Your task to perform on an android device: toggle show notifications on the lock screen Image 0: 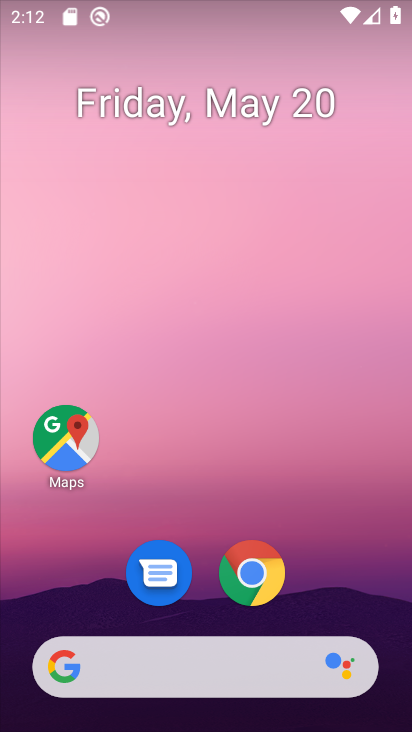
Step 0: drag from (207, 617) to (207, 177)
Your task to perform on an android device: toggle show notifications on the lock screen Image 1: 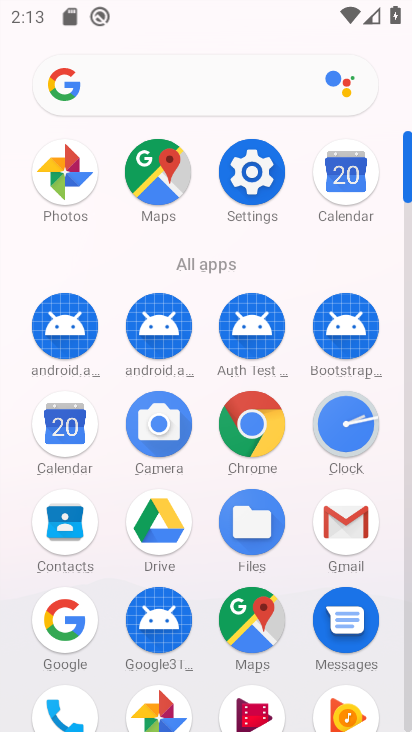
Step 1: click (254, 179)
Your task to perform on an android device: toggle show notifications on the lock screen Image 2: 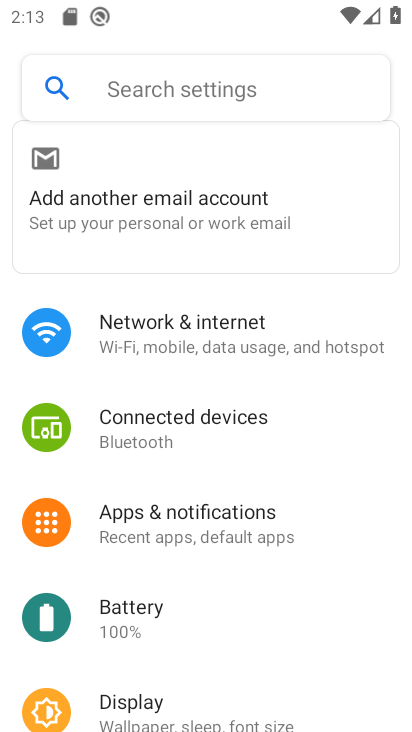
Step 2: click (243, 543)
Your task to perform on an android device: toggle show notifications on the lock screen Image 3: 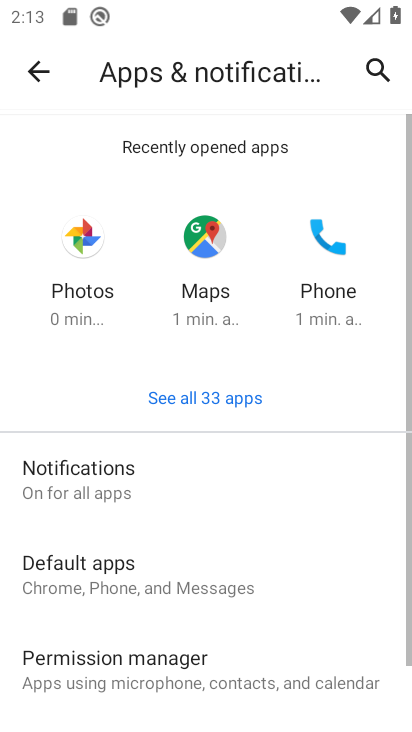
Step 3: click (163, 473)
Your task to perform on an android device: toggle show notifications on the lock screen Image 4: 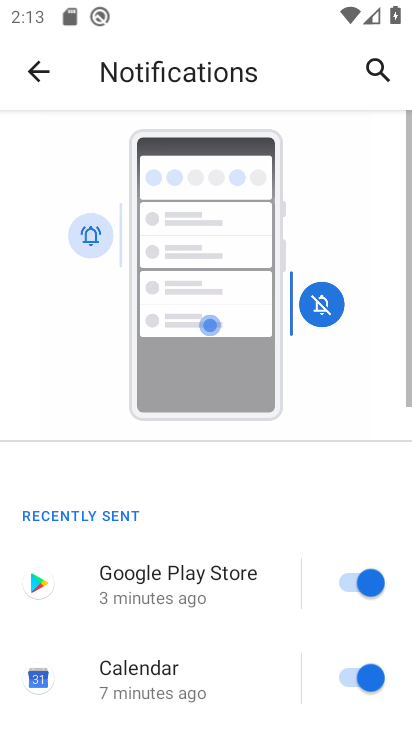
Step 4: drag from (210, 576) to (235, 281)
Your task to perform on an android device: toggle show notifications on the lock screen Image 5: 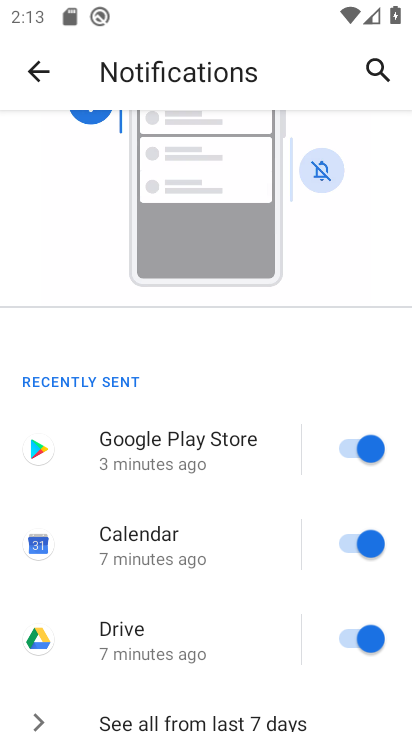
Step 5: drag from (219, 609) to (231, 270)
Your task to perform on an android device: toggle show notifications on the lock screen Image 6: 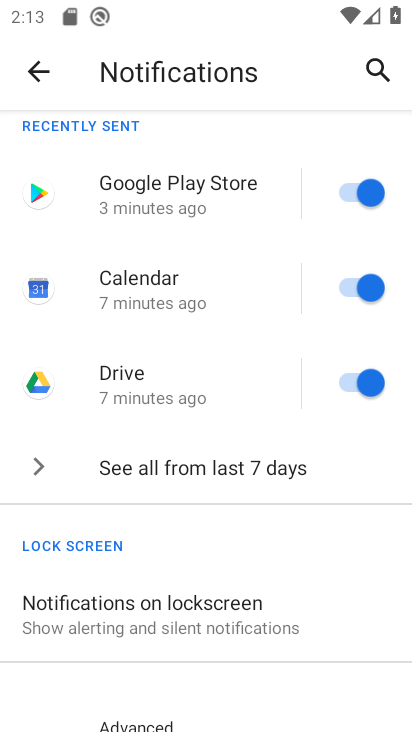
Step 6: drag from (227, 546) to (239, 434)
Your task to perform on an android device: toggle show notifications on the lock screen Image 7: 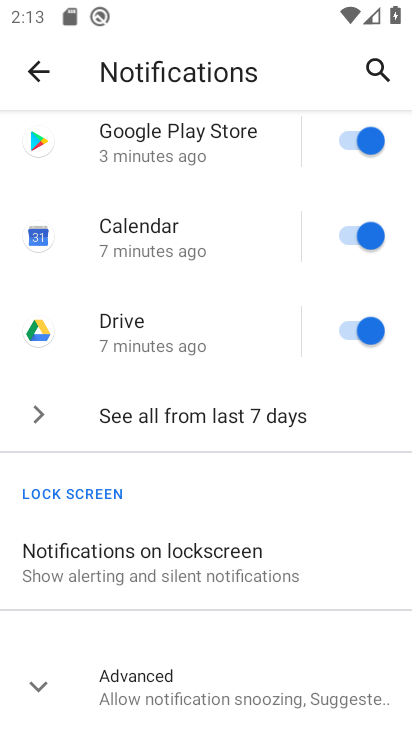
Step 7: click (238, 551)
Your task to perform on an android device: toggle show notifications on the lock screen Image 8: 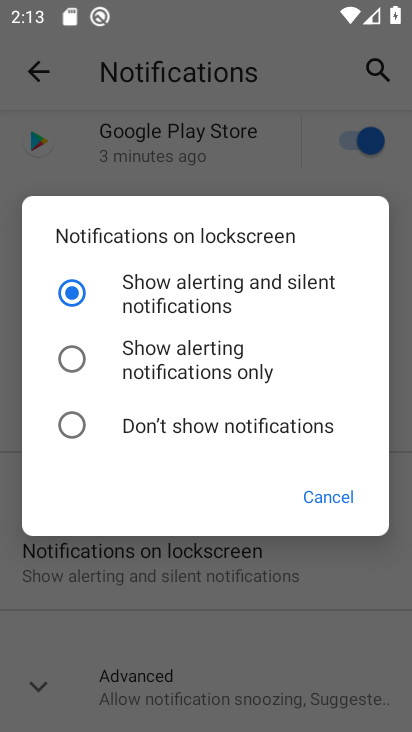
Step 8: click (205, 432)
Your task to perform on an android device: toggle show notifications on the lock screen Image 9: 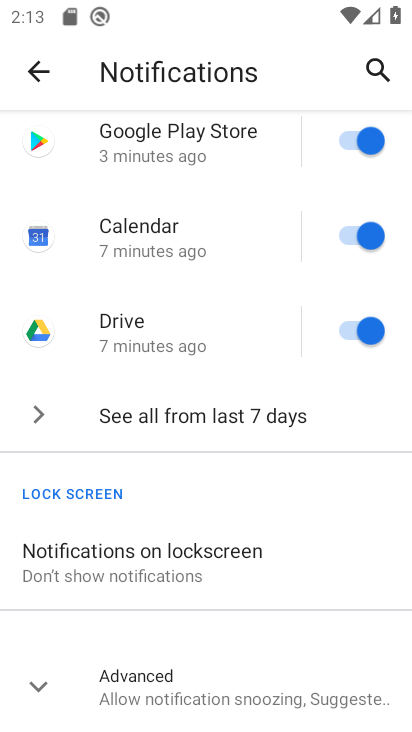
Step 9: task complete